Your task to perform on an android device: search for starred emails in the gmail app Image 0: 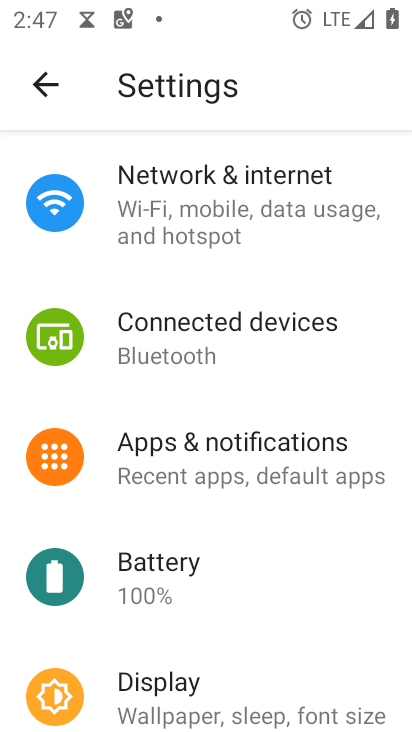
Step 0: press back button
Your task to perform on an android device: search for starred emails in the gmail app Image 1: 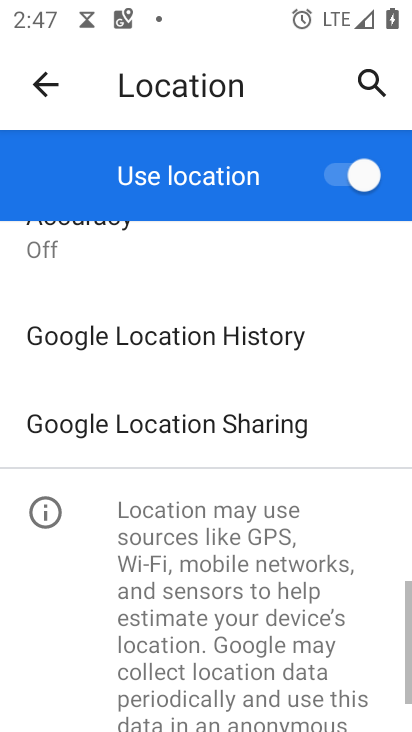
Step 1: press home button
Your task to perform on an android device: search for starred emails in the gmail app Image 2: 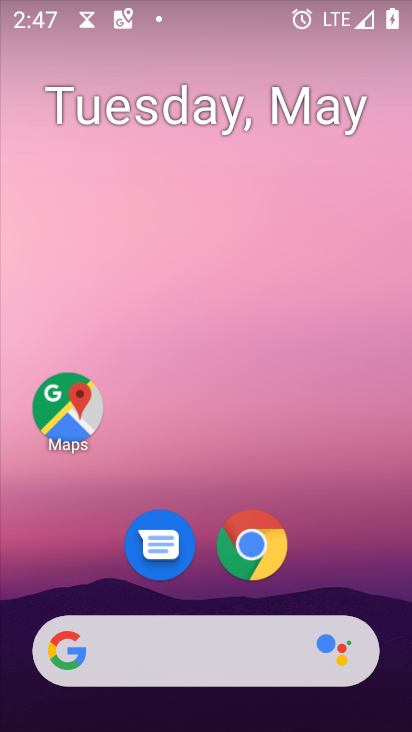
Step 2: drag from (366, 545) to (259, 35)
Your task to perform on an android device: search for starred emails in the gmail app Image 3: 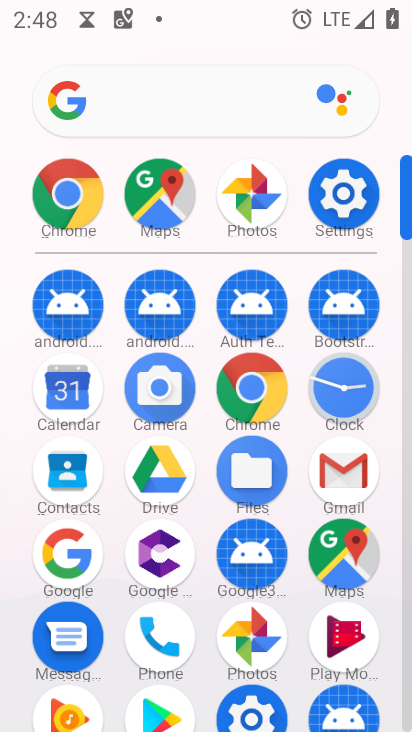
Step 3: drag from (4, 585) to (21, 228)
Your task to perform on an android device: search for starred emails in the gmail app Image 4: 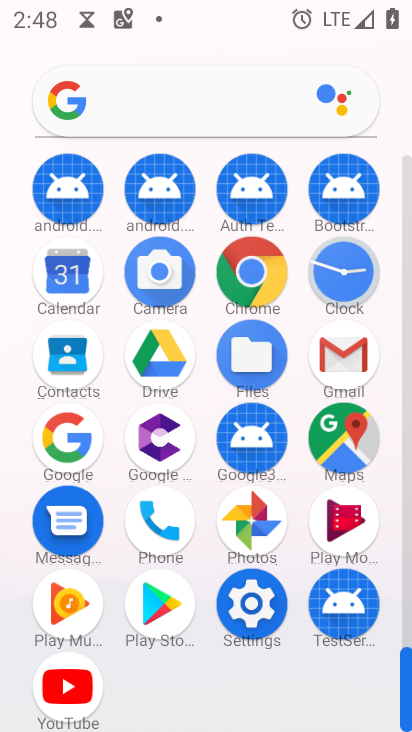
Step 4: drag from (5, 575) to (11, 279)
Your task to perform on an android device: search for starred emails in the gmail app Image 5: 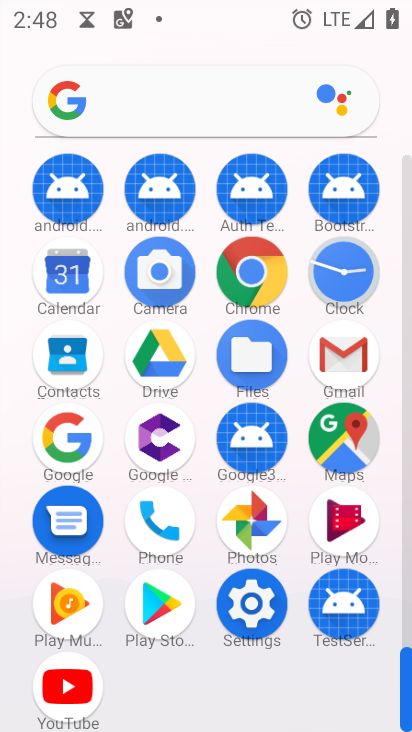
Step 5: click (340, 343)
Your task to perform on an android device: search for starred emails in the gmail app Image 6: 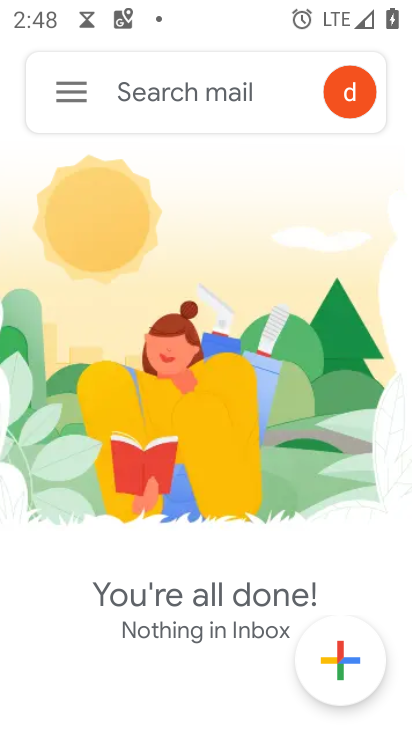
Step 6: click (62, 89)
Your task to perform on an android device: search for starred emails in the gmail app Image 7: 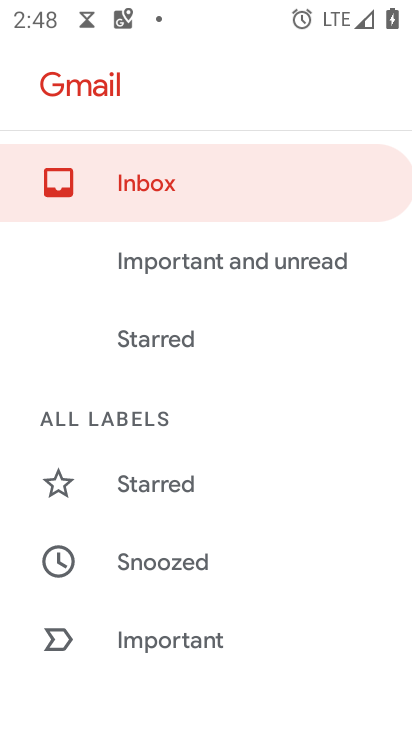
Step 7: drag from (254, 561) to (287, 212)
Your task to perform on an android device: search for starred emails in the gmail app Image 8: 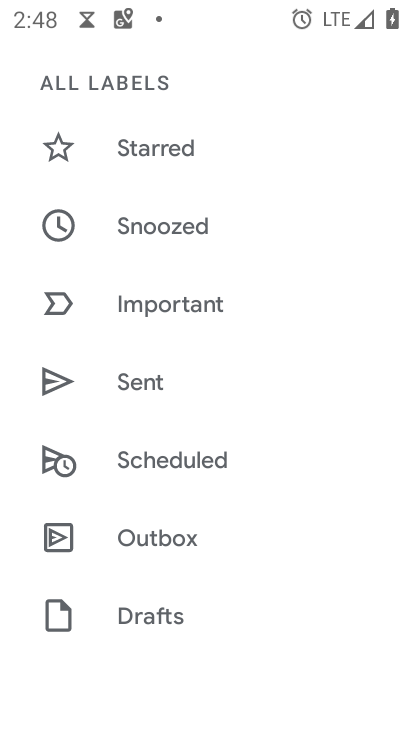
Step 8: click (167, 138)
Your task to perform on an android device: search for starred emails in the gmail app Image 9: 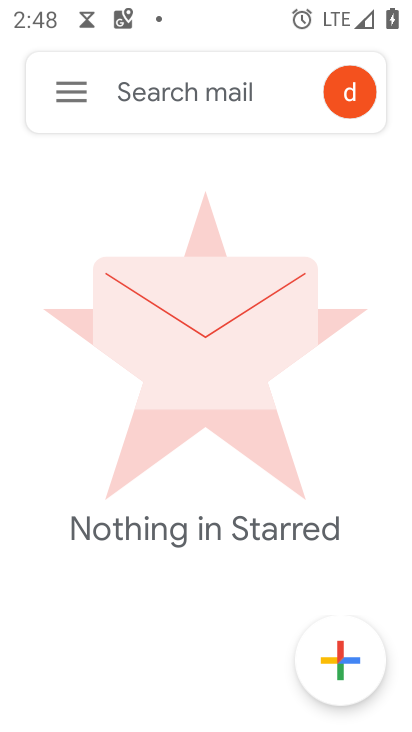
Step 9: task complete